Your task to perform on an android device: turn on bluetooth scan Image 0: 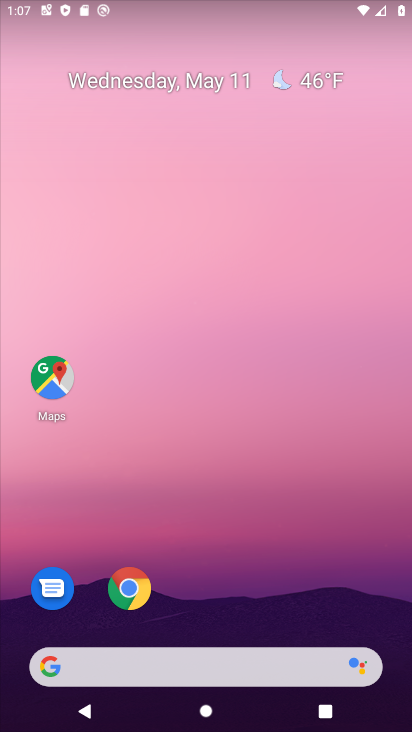
Step 0: drag from (201, 493) to (183, 57)
Your task to perform on an android device: turn on bluetooth scan Image 1: 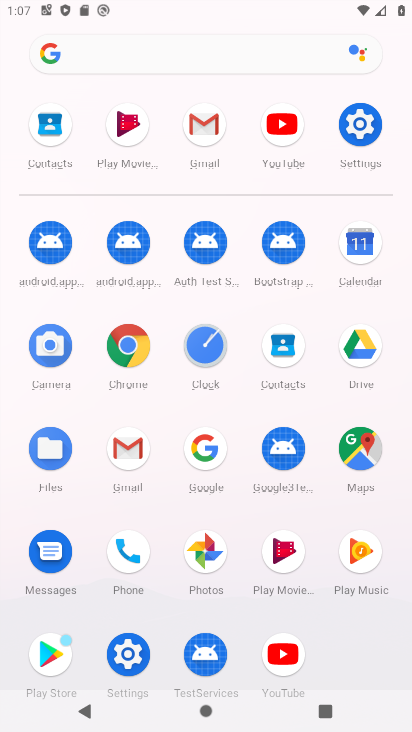
Step 1: click (372, 132)
Your task to perform on an android device: turn on bluetooth scan Image 2: 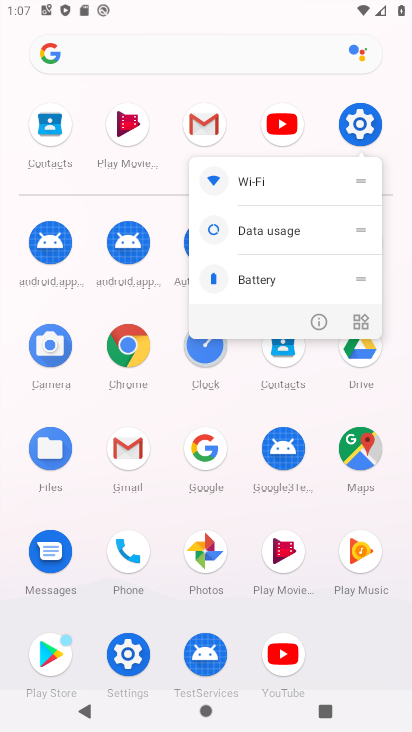
Step 2: click (365, 133)
Your task to perform on an android device: turn on bluetooth scan Image 3: 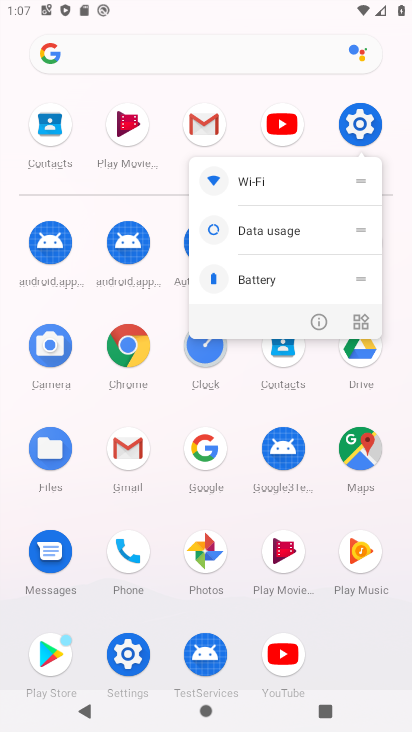
Step 3: click (364, 129)
Your task to perform on an android device: turn on bluetooth scan Image 4: 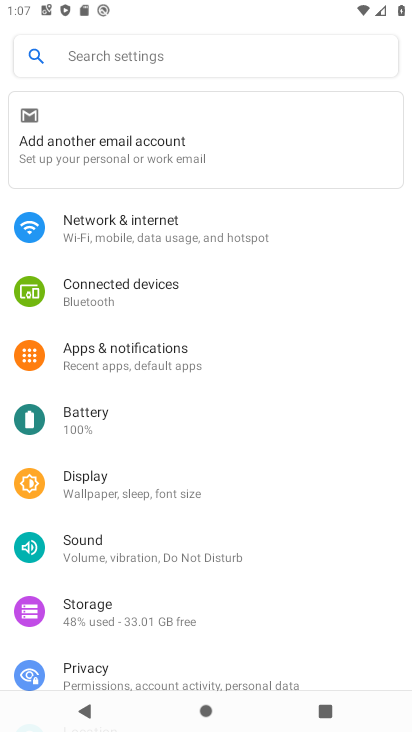
Step 4: drag from (207, 616) to (211, 326)
Your task to perform on an android device: turn on bluetooth scan Image 5: 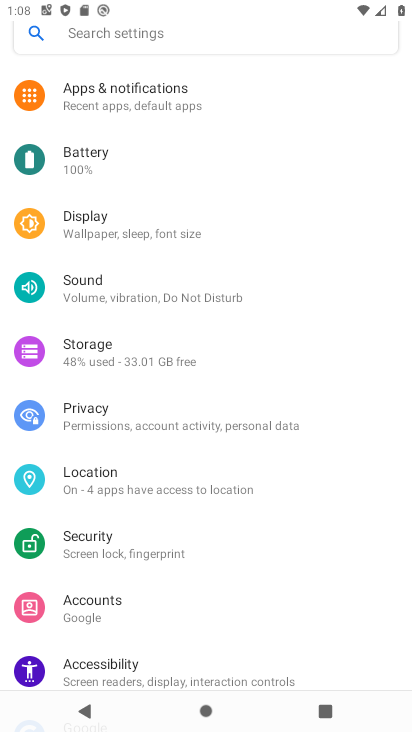
Step 5: click (189, 493)
Your task to perform on an android device: turn on bluetooth scan Image 6: 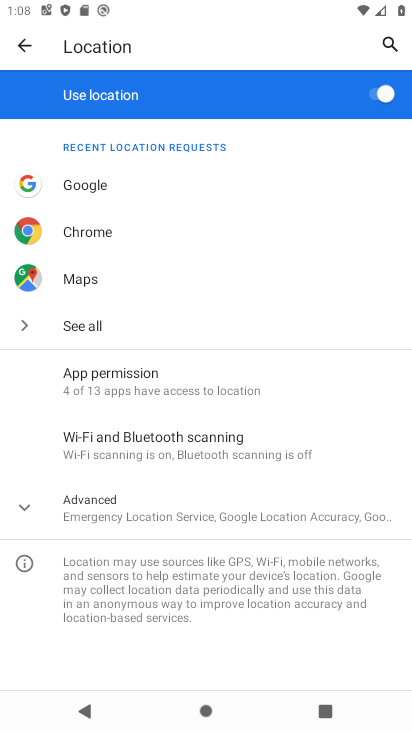
Step 6: click (218, 451)
Your task to perform on an android device: turn on bluetooth scan Image 7: 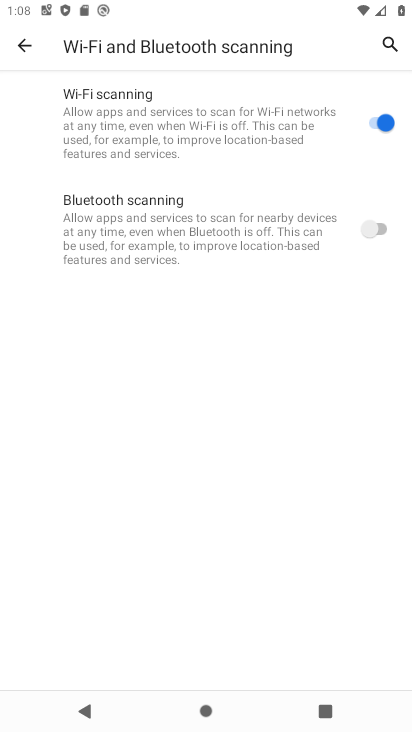
Step 7: click (370, 222)
Your task to perform on an android device: turn on bluetooth scan Image 8: 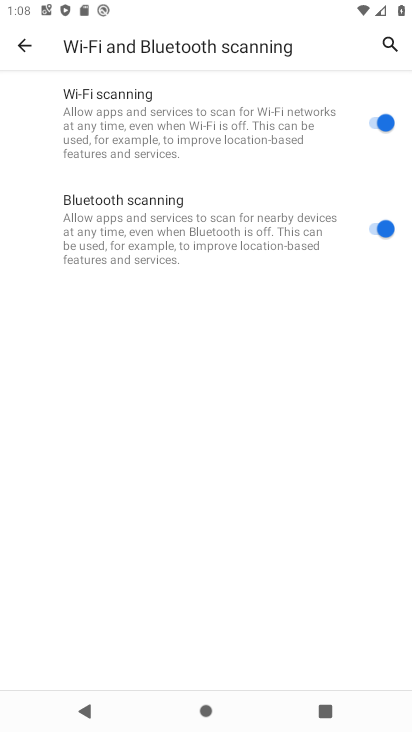
Step 8: task complete